Your task to perform on an android device: turn off airplane mode Image 0: 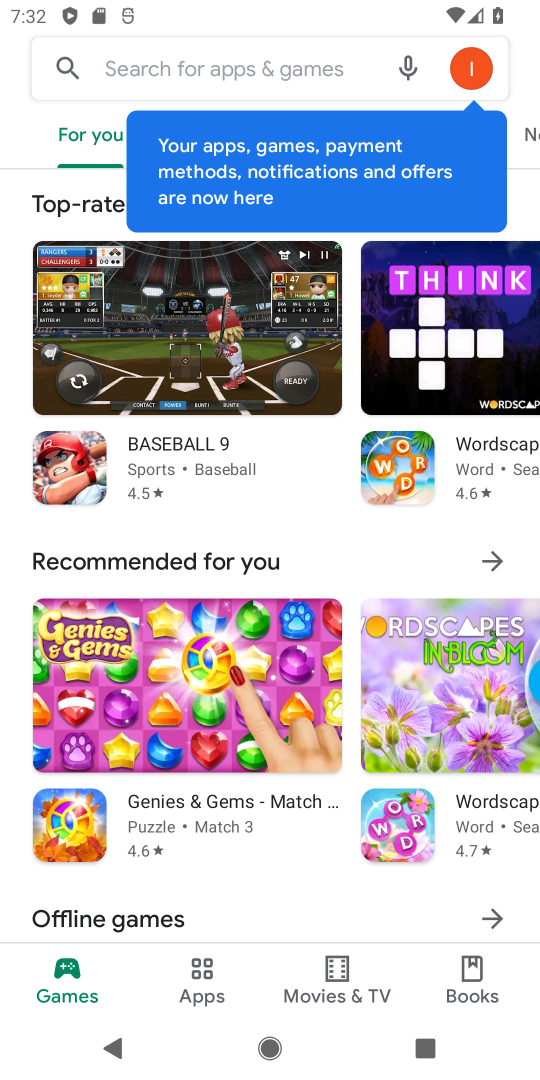
Step 0: press home button
Your task to perform on an android device: turn off airplane mode Image 1: 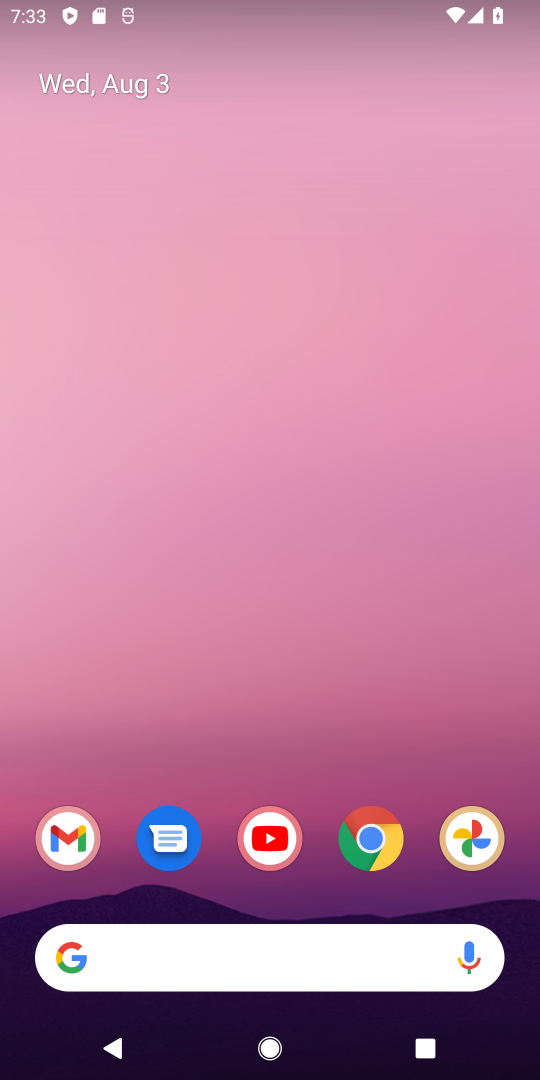
Step 1: drag from (260, 758) to (4, 647)
Your task to perform on an android device: turn off airplane mode Image 2: 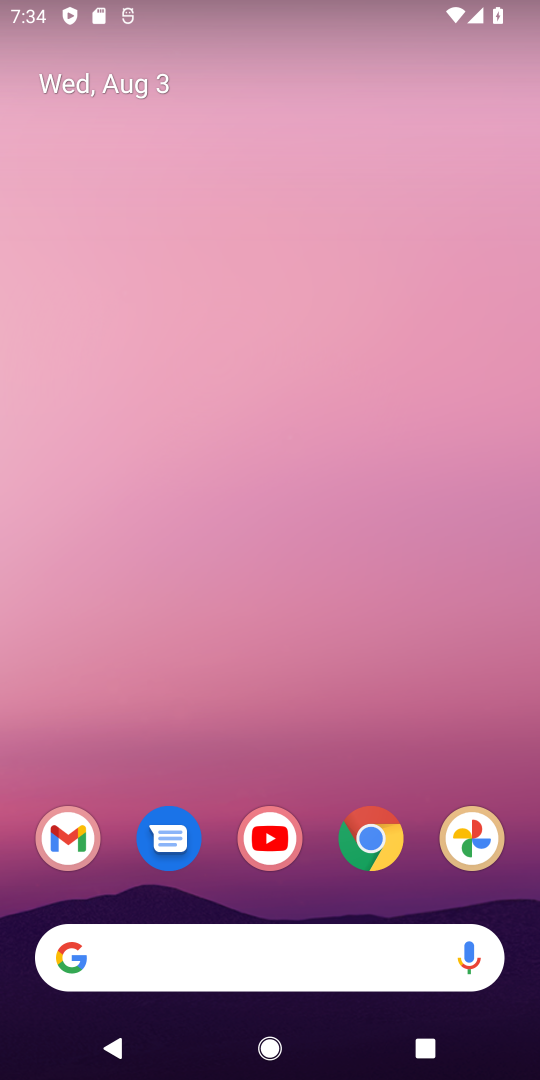
Step 2: click (471, 701)
Your task to perform on an android device: turn off airplane mode Image 3: 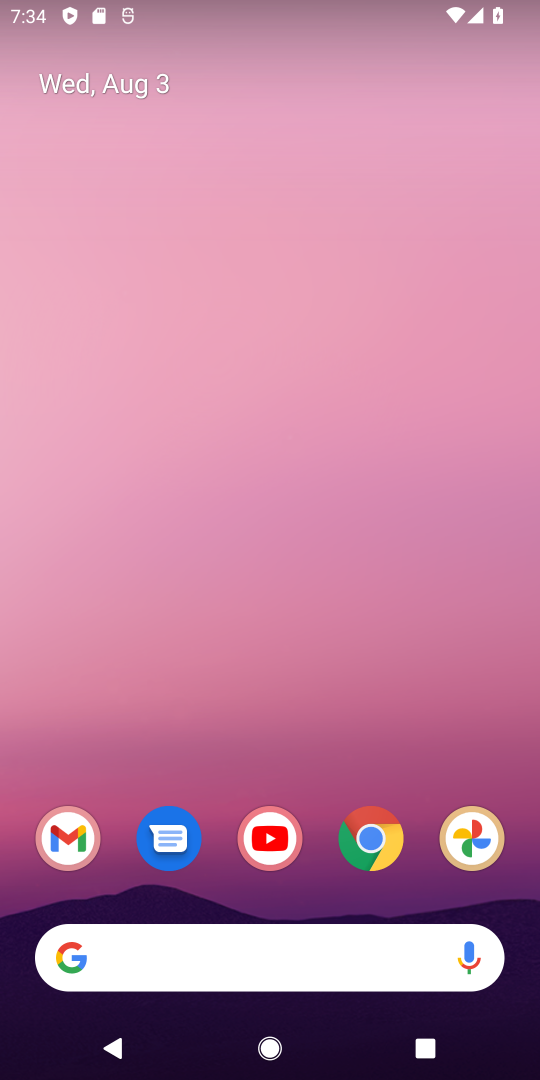
Step 3: drag from (209, 898) to (354, 0)
Your task to perform on an android device: turn off airplane mode Image 4: 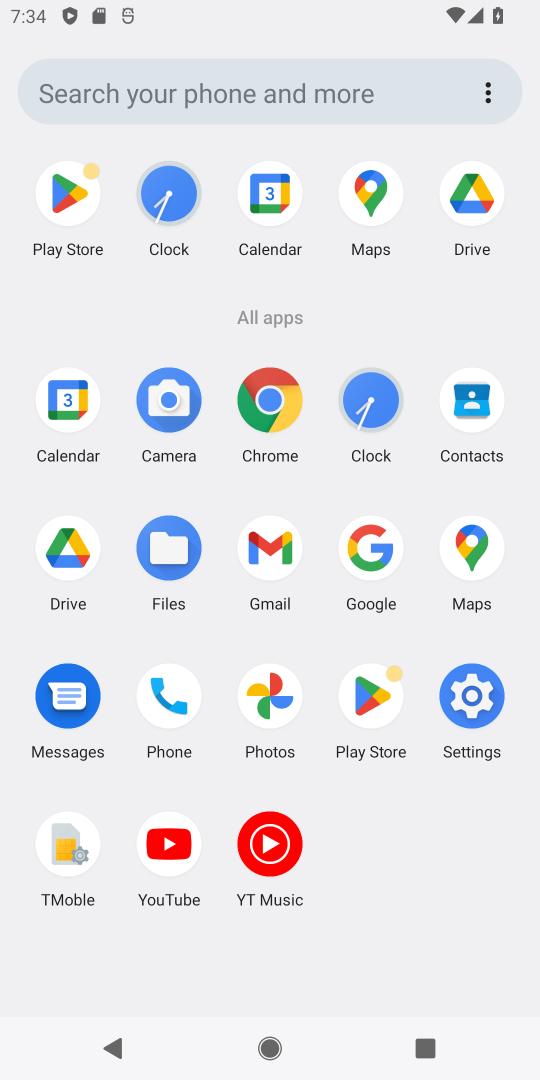
Step 4: click (466, 684)
Your task to perform on an android device: turn off airplane mode Image 5: 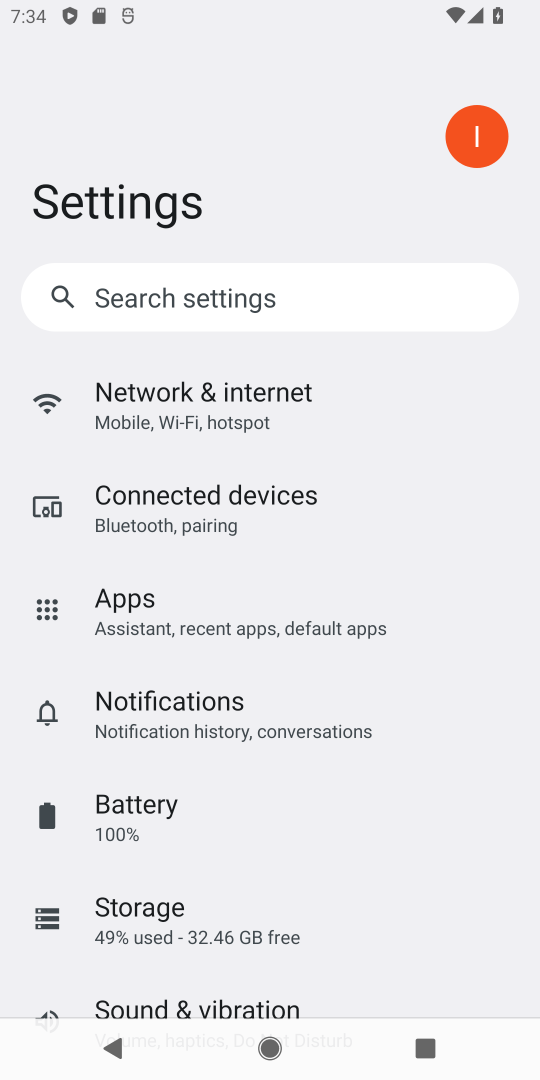
Step 5: click (191, 412)
Your task to perform on an android device: turn off airplane mode Image 6: 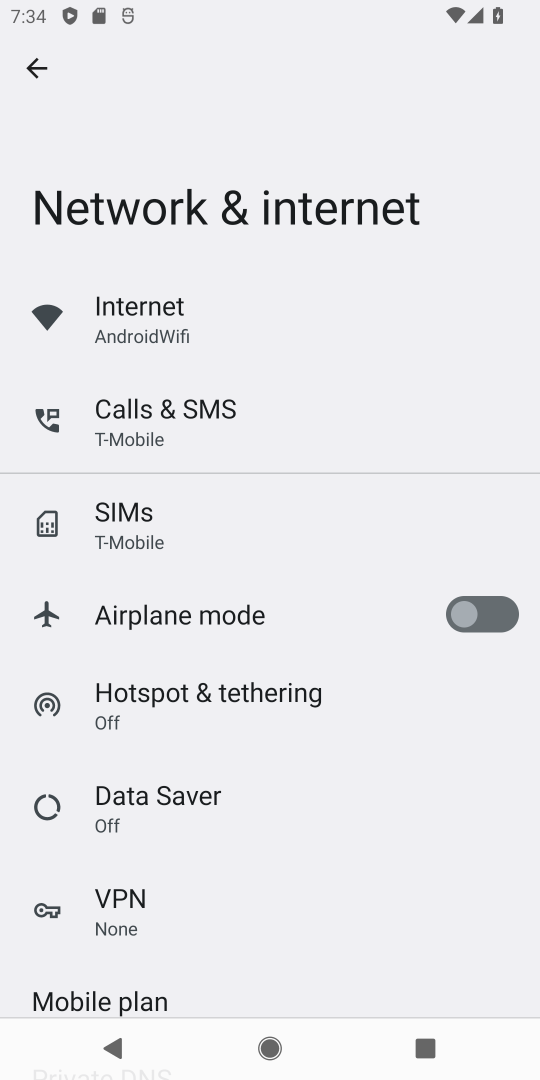
Step 6: task complete